Your task to perform on an android device: turn on wifi Image 0: 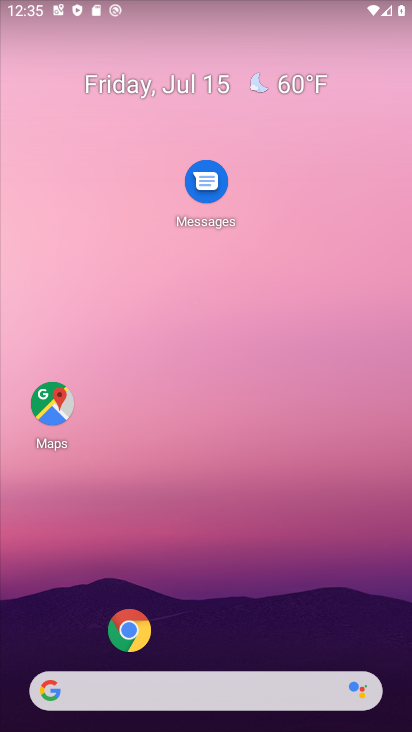
Step 0: drag from (27, 704) to (299, 142)
Your task to perform on an android device: turn on wifi Image 1: 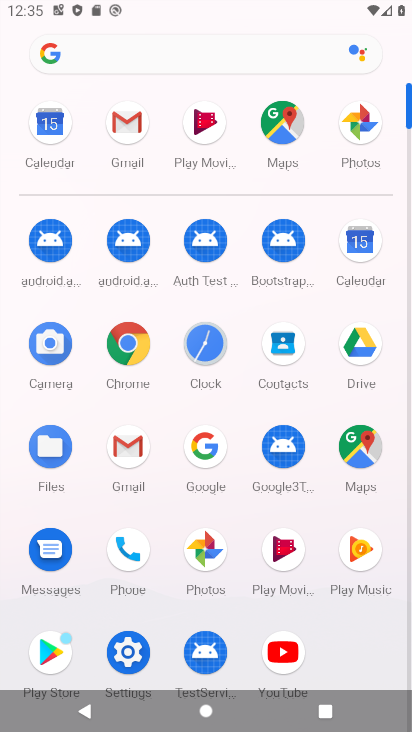
Step 1: click (123, 643)
Your task to perform on an android device: turn on wifi Image 2: 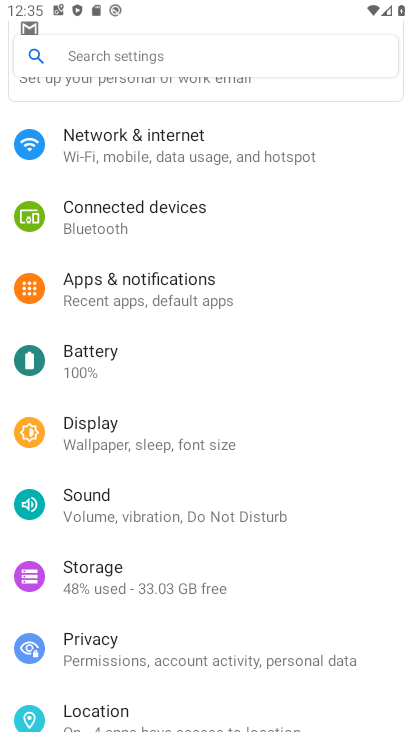
Step 2: click (143, 143)
Your task to perform on an android device: turn on wifi Image 3: 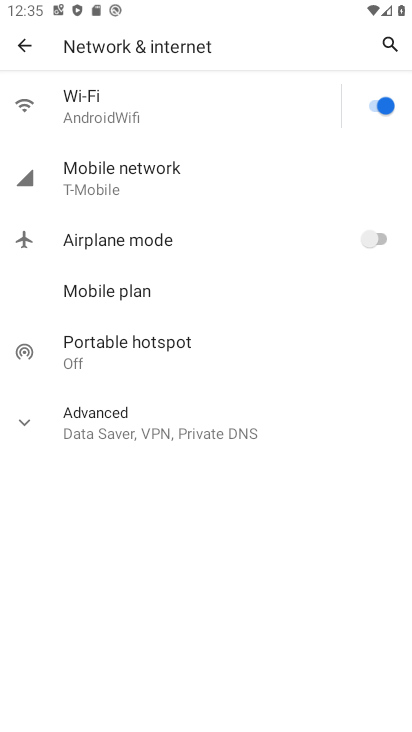
Step 3: task complete